Your task to perform on an android device: turn off wifi Image 0: 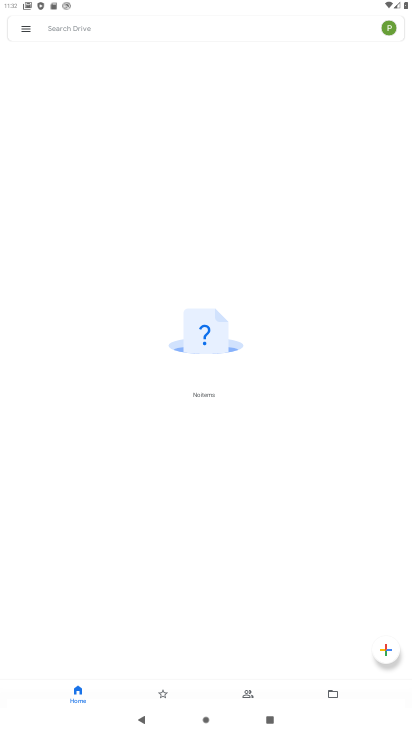
Step 0: press home button
Your task to perform on an android device: turn off wifi Image 1: 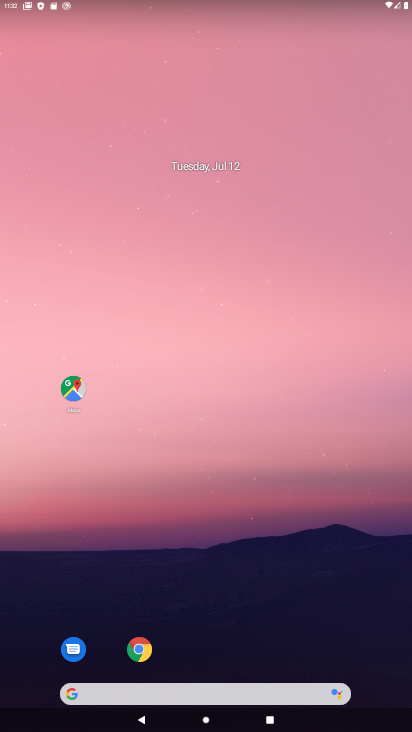
Step 1: drag from (218, 658) to (213, 20)
Your task to perform on an android device: turn off wifi Image 2: 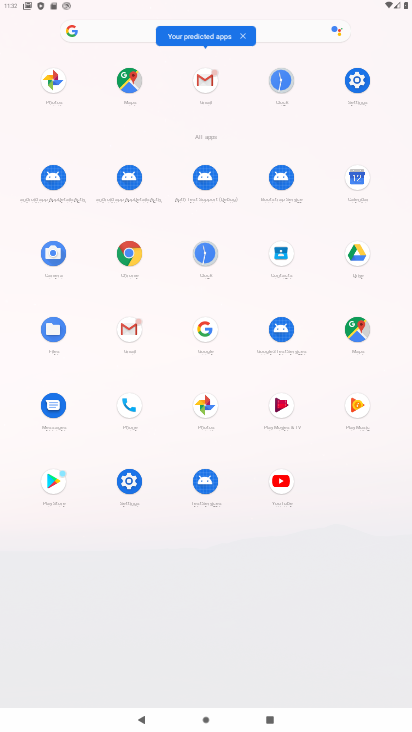
Step 2: click (124, 483)
Your task to perform on an android device: turn off wifi Image 3: 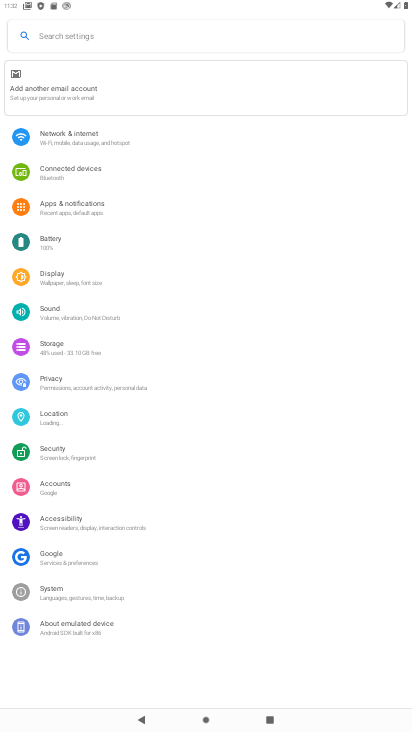
Step 3: click (81, 131)
Your task to perform on an android device: turn off wifi Image 4: 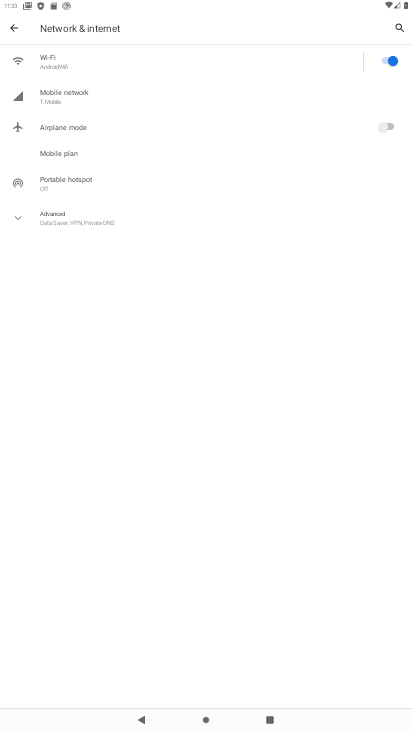
Step 4: click (391, 65)
Your task to perform on an android device: turn off wifi Image 5: 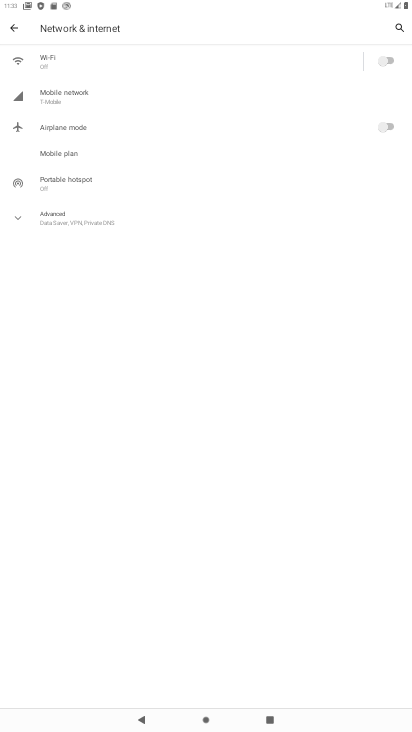
Step 5: task complete